Your task to perform on an android device: turn on notifications settings in the gmail app Image 0: 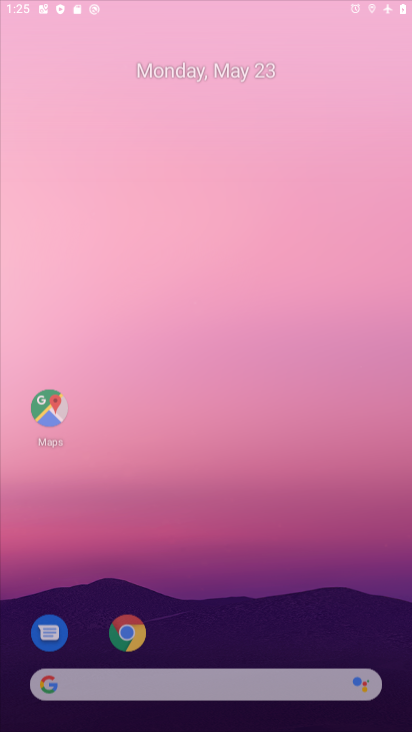
Step 0: click (227, 132)
Your task to perform on an android device: turn on notifications settings in the gmail app Image 1: 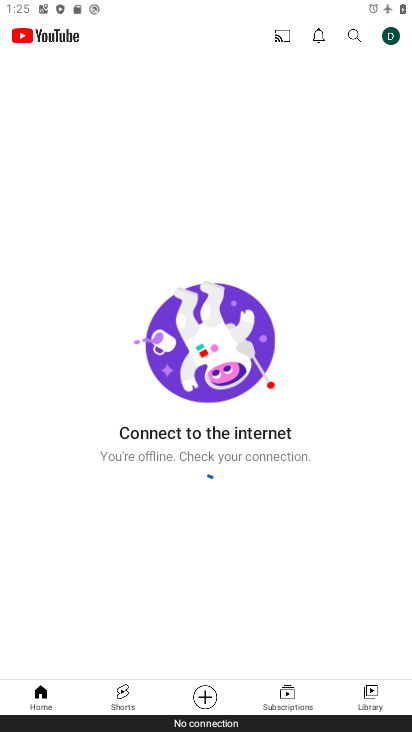
Step 1: press home button
Your task to perform on an android device: turn on notifications settings in the gmail app Image 2: 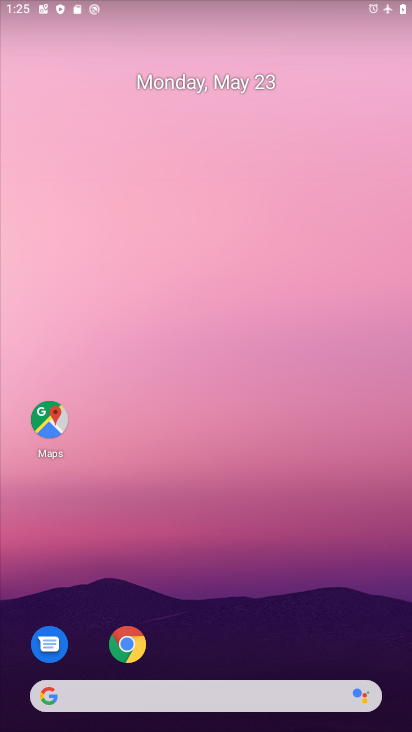
Step 2: drag from (328, 619) to (289, 152)
Your task to perform on an android device: turn on notifications settings in the gmail app Image 3: 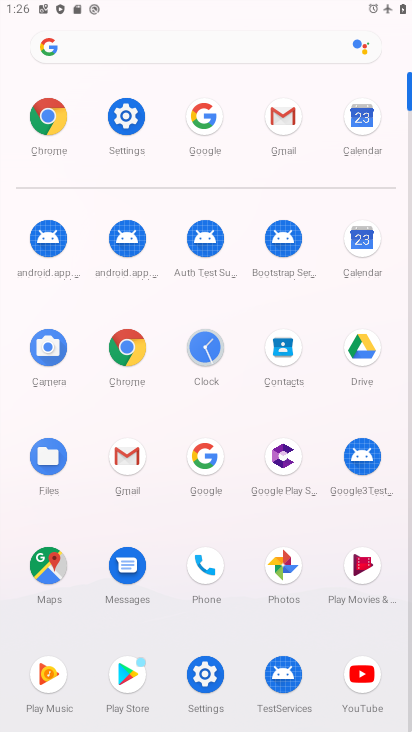
Step 3: click (127, 465)
Your task to perform on an android device: turn on notifications settings in the gmail app Image 4: 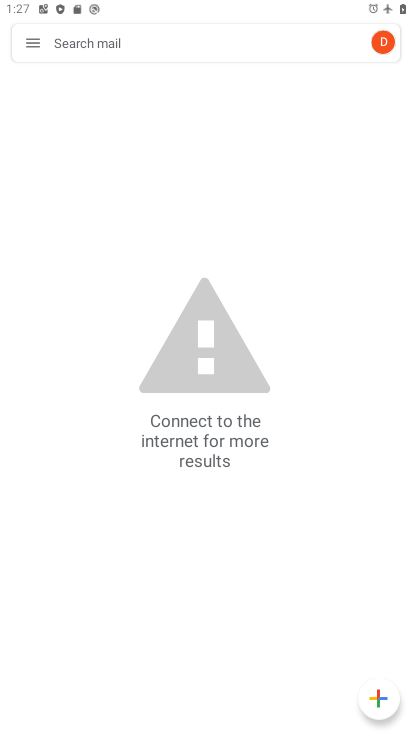
Step 4: click (39, 50)
Your task to perform on an android device: turn on notifications settings in the gmail app Image 5: 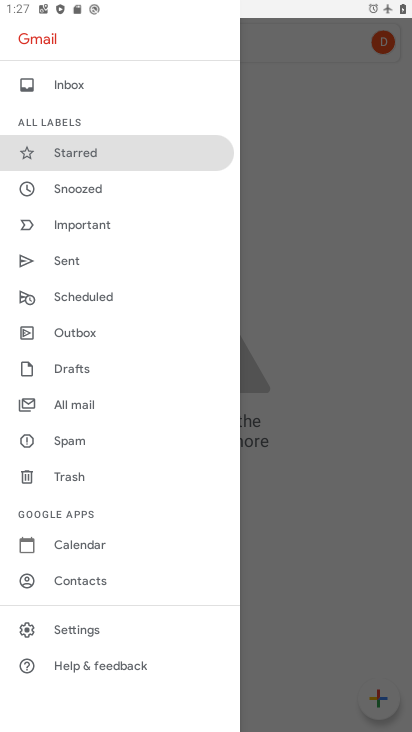
Step 5: click (71, 644)
Your task to perform on an android device: turn on notifications settings in the gmail app Image 6: 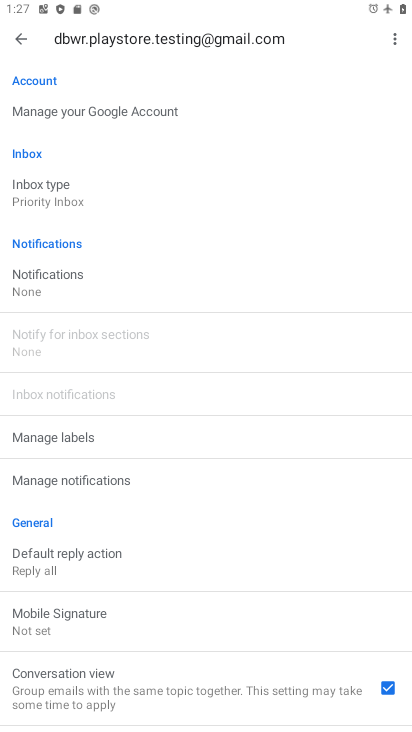
Step 6: click (138, 291)
Your task to perform on an android device: turn on notifications settings in the gmail app Image 7: 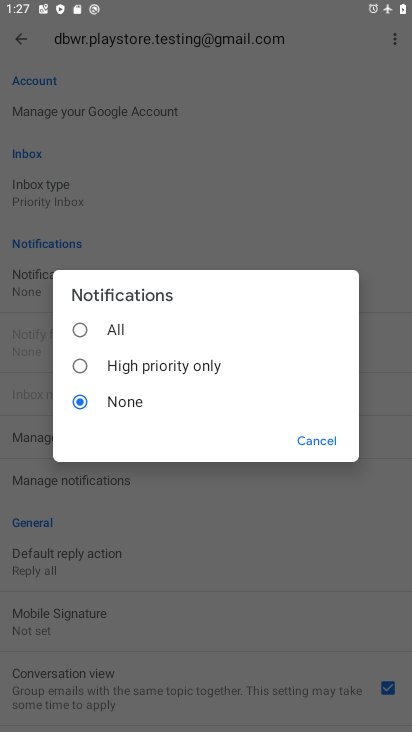
Step 7: click (82, 321)
Your task to perform on an android device: turn on notifications settings in the gmail app Image 8: 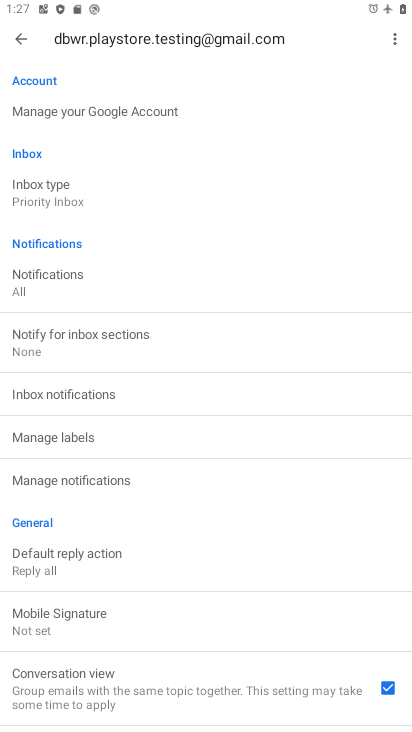
Step 8: task complete